Your task to perform on an android device: check the backup settings in the google photos Image 0: 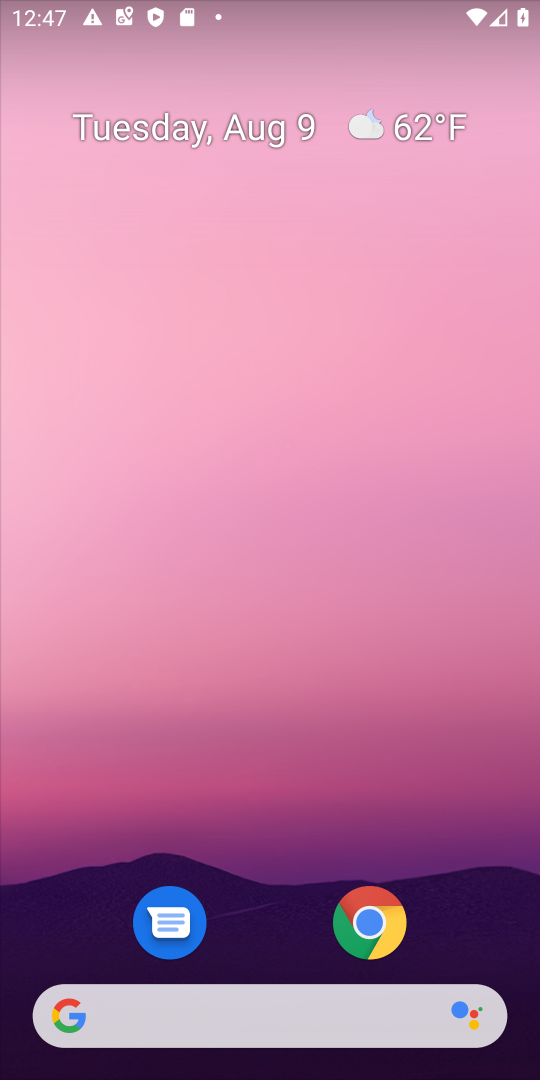
Step 0: drag from (339, 971) to (267, 9)
Your task to perform on an android device: check the backup settings in the google photos Image 1: 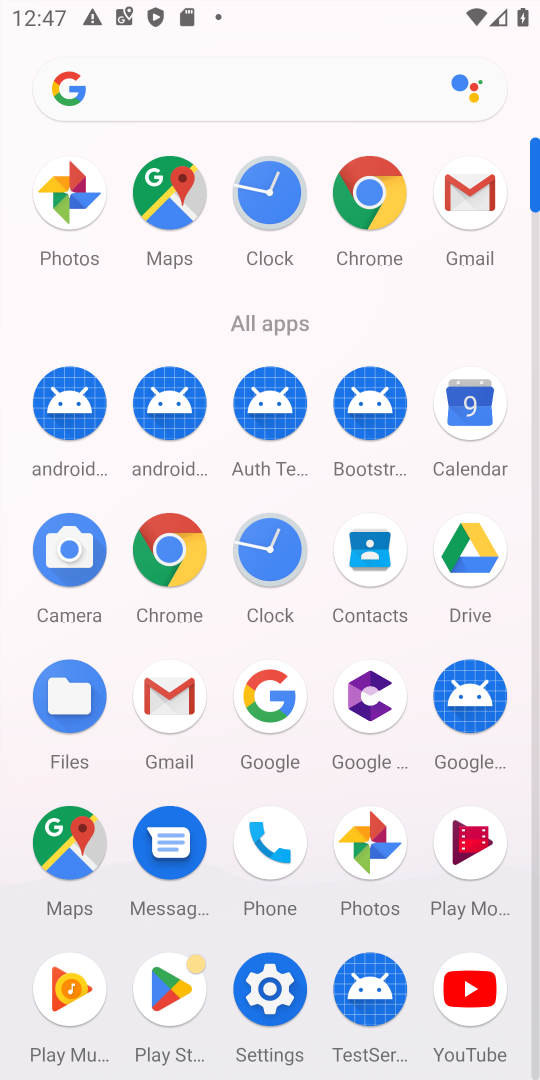
Step 1: click (365, 830)
Your task to perform on an android device: check the backup settings in the google photos Image 2: 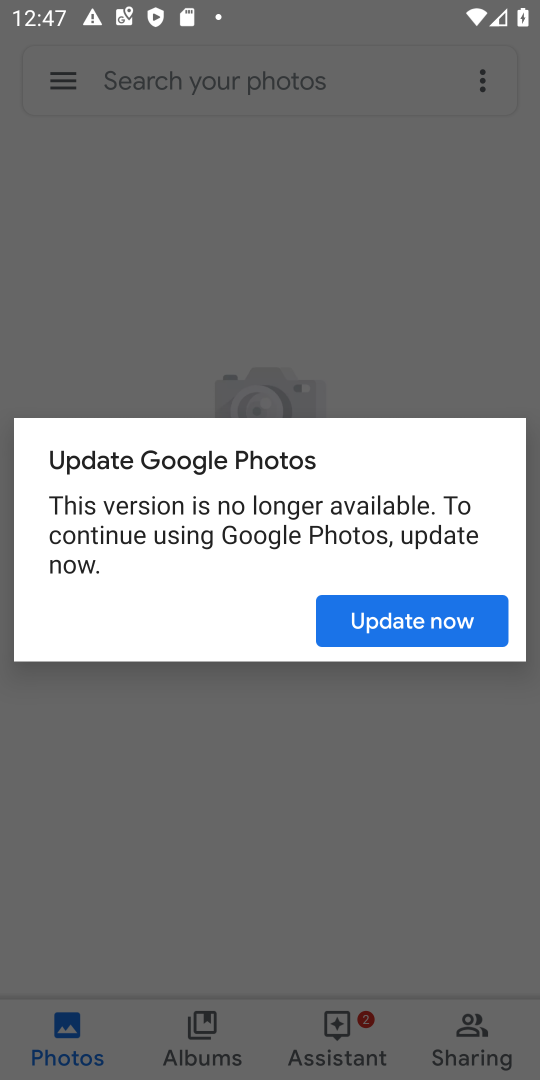
Step 2: click (394, 628)
Your task to perform on an android device: check the backup settings in the google photos Image 3: 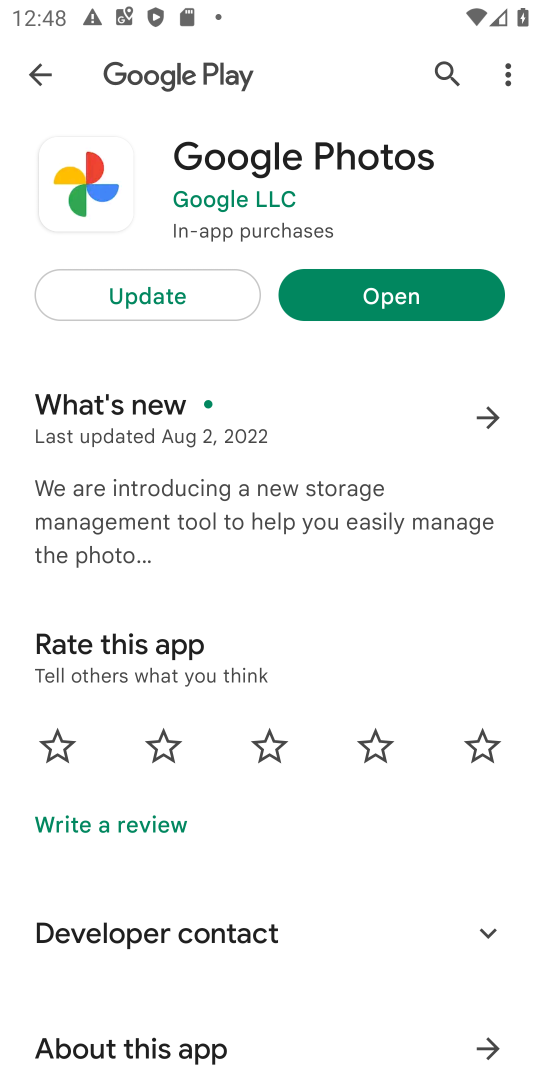
Step 3: click (364, 310)
Your task to perform on an android device: check the backup settings in the google photos Image 4: 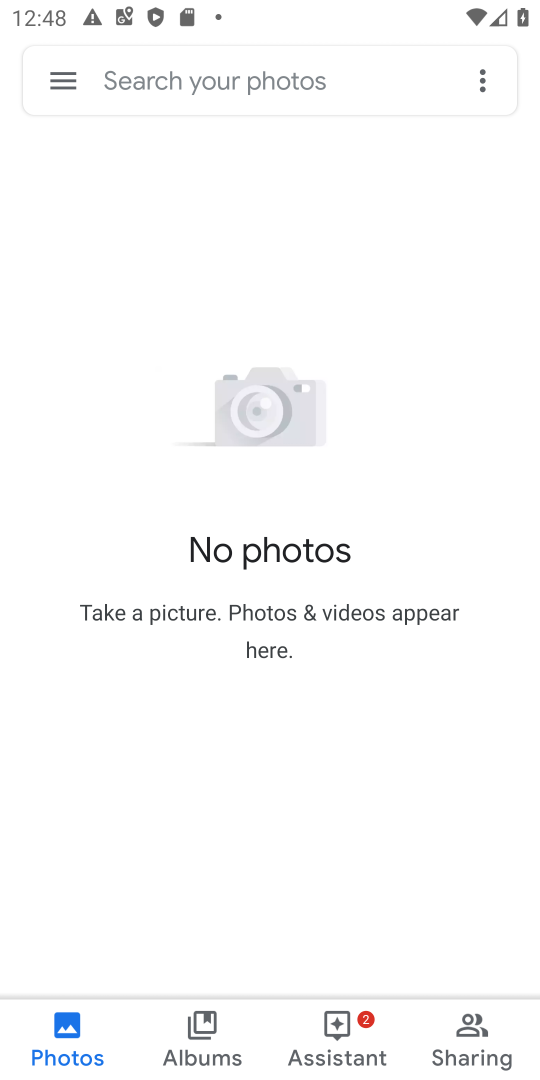
Step 4: click (77, 72)
Your task to perform on an android device: check the backup settings in the google photos Image 5: 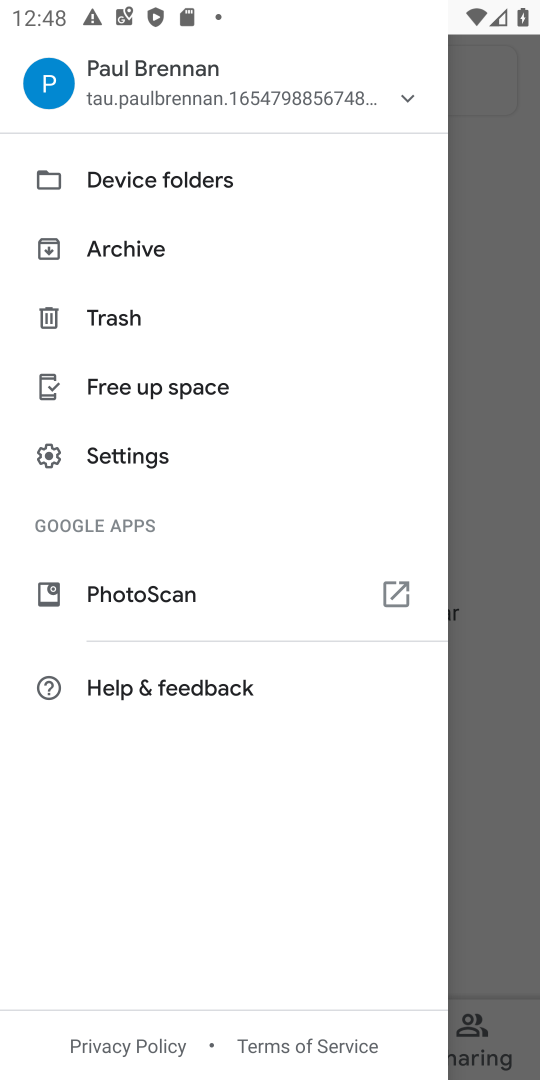
Step 5: click (124, 457)
Your task to perform on an android device: check the backup settings in the google photos Image 6: 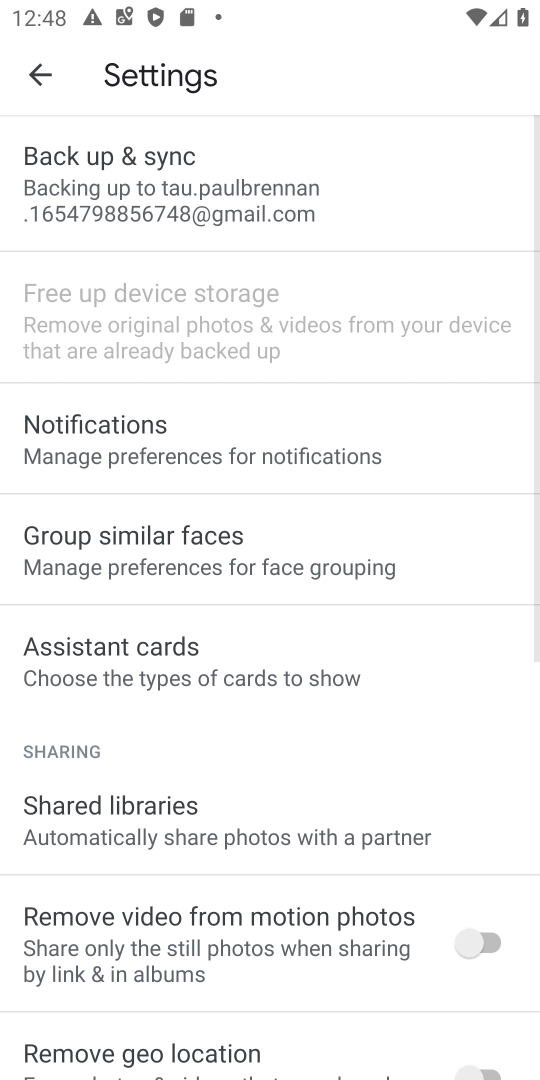
Step 6: click (150, 176)
Your task to perform on an android device: check the backup settings in the google photos Image 7: 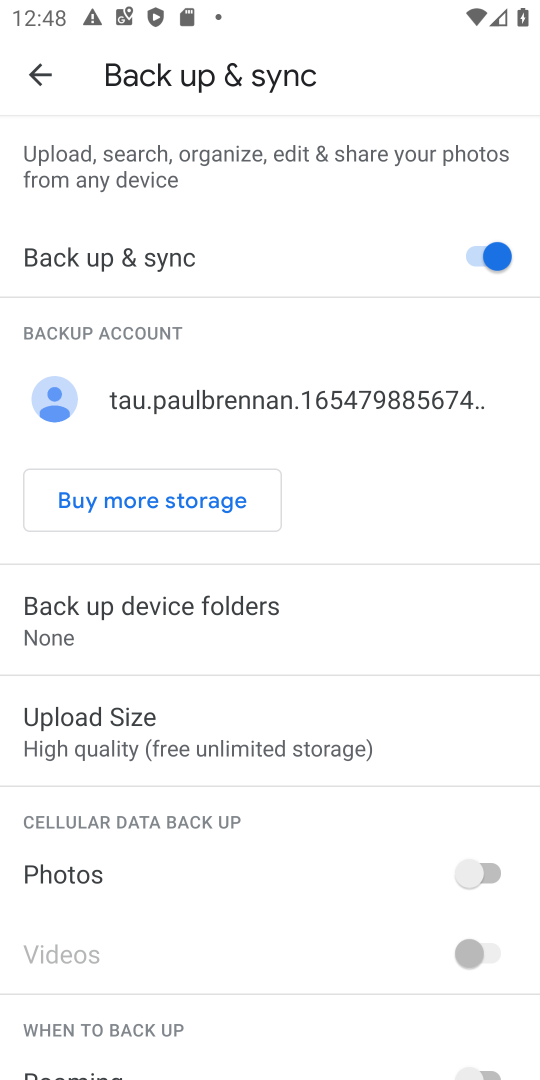
Step 7: task complete